Your task to perform on an android device: turn off airplane mode Image 0: 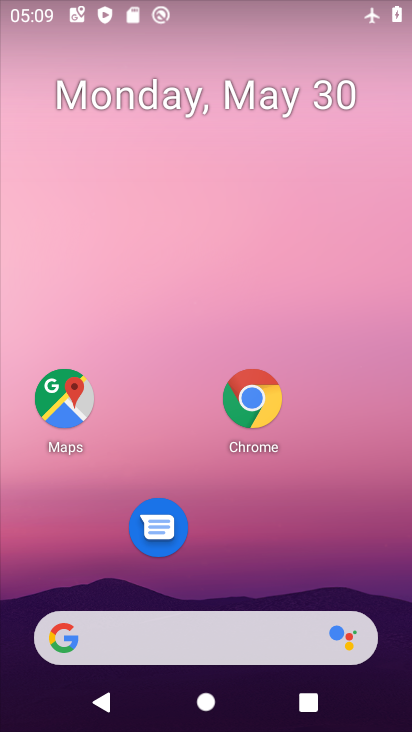
Step 0: drag from (227, 706) to (227, 40)
Your task to perform on an android device: turn off airplane mode Image 1: 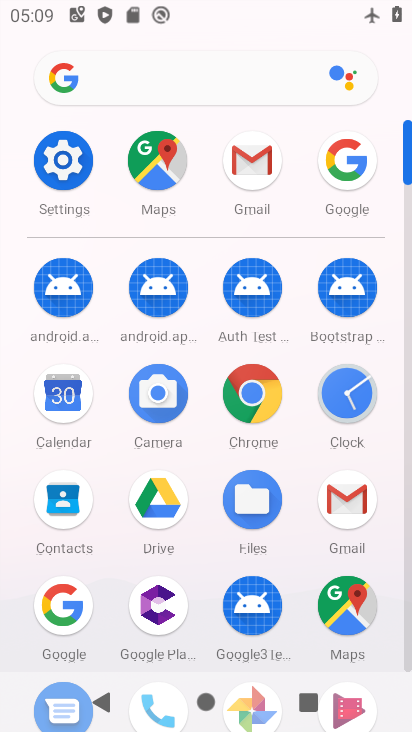
Step 1: click (66, 153)
Your task to perform on an android device: turn off airplane mode Image 2: 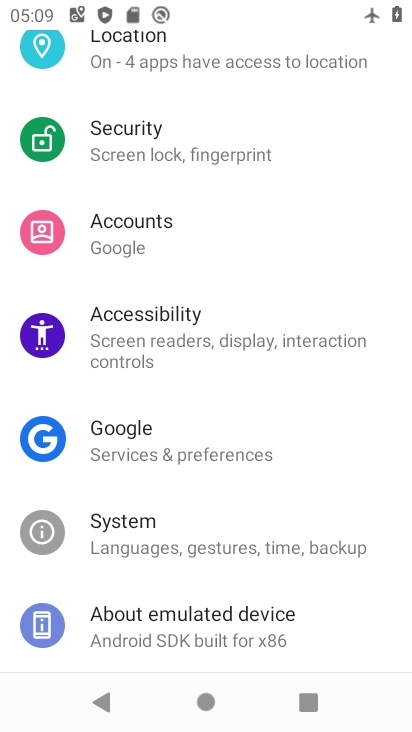
Step 2: drag from (274, 89) to (266, 560)
Your task to perform on an android device: turn off airplane mode Image 3: 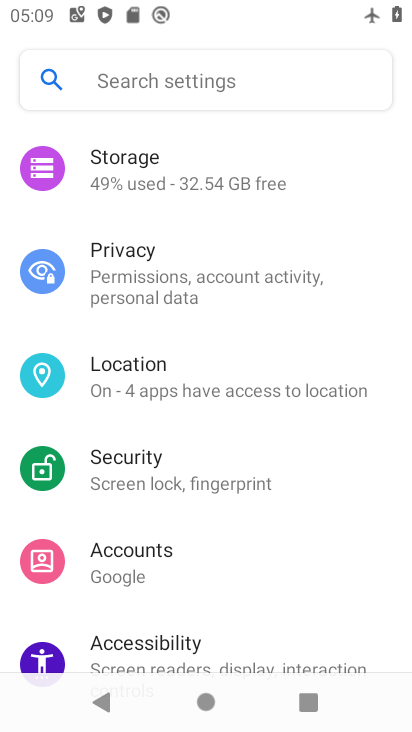
Step 3: drag from (263, 134) to (261, 590)
Your task to perform on an android device: turn off airplane mode Image 4: 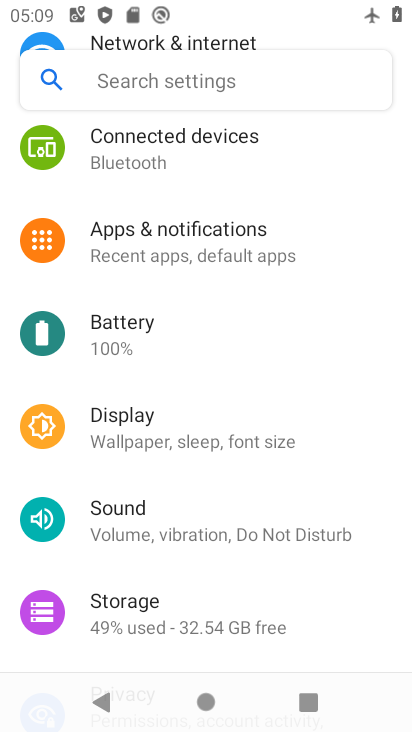
Step 4: drag from (263, 141) to (259, 629)
Your task to perform on an android device: turn off airplane mode Image 5: 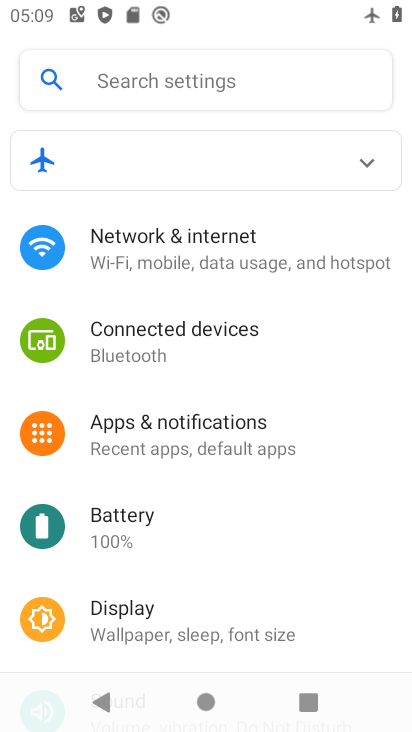
Step 5: click (179, 260)
Your task to perform on an android device: turn off airplane mode Image 6: 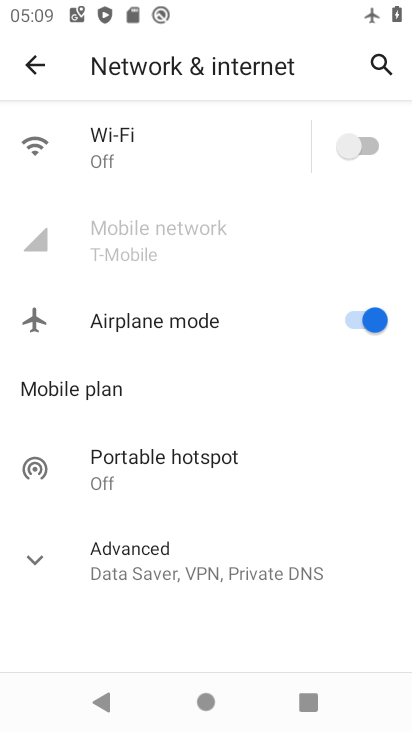
Step 6: click (354, 322)
Your task to perform on an android device: turn off airplane mode Image 7: 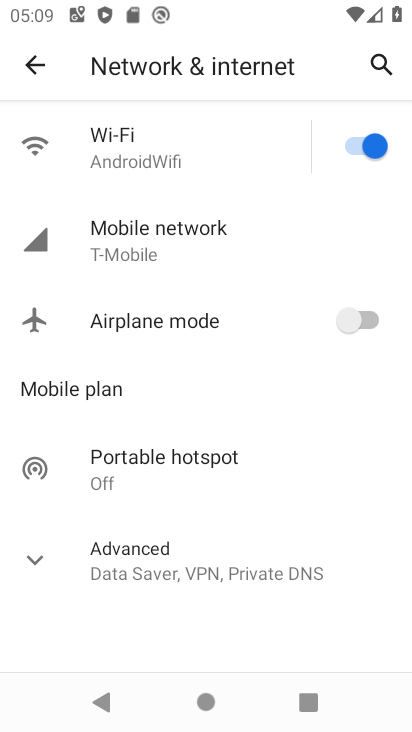
Step 7: task complete